Your task to perform on an android device: toggle pop-ups in chrome Image 0: 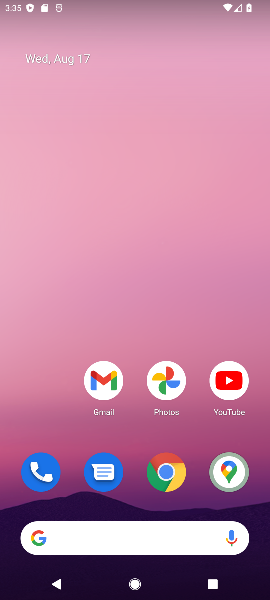
Step 0: click (159, 481)
Your task to perform on an android device: toggle pop-ups in chrome Image 1: 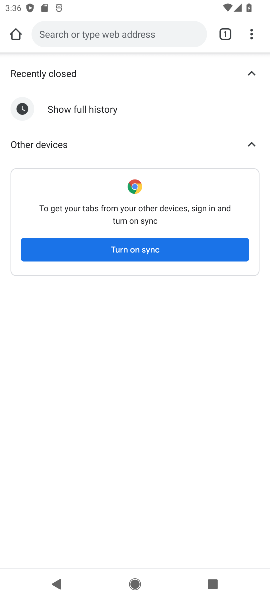
Step 1: click (247, 30)
Your task to perform on an android device: toggle pop-ups in chrome Image 2: 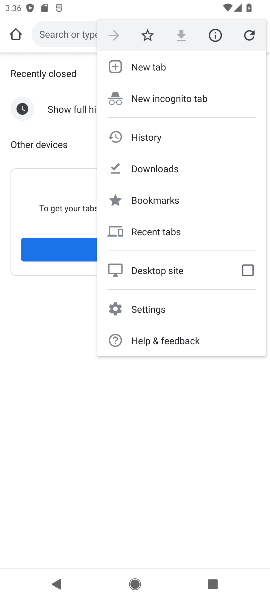
Step 2: click (154, 301)
Your task to perform on an android device: toggle pop-ups in chrome Image 3: 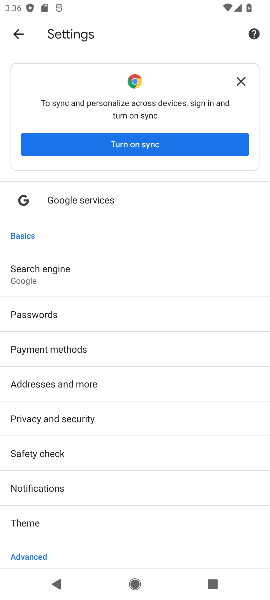
Step 3: drag from (106, 521) to (144, 210)
Your task to perform on an android device: toggle pop-ups in chrome Image 4: 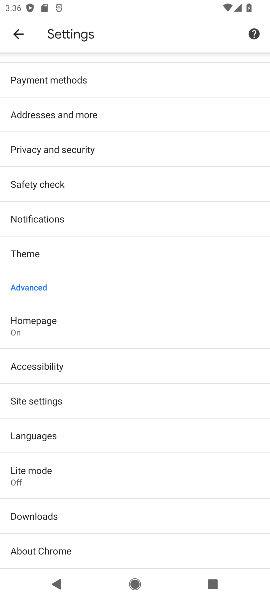
Step 4: click (71, 401)
Your task to perform on an android device: toggle pop-ups in chrome Image 5: 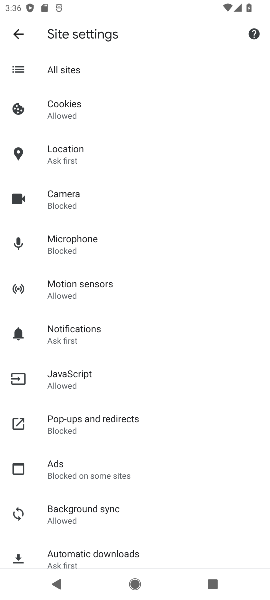
Step 5: drag from (124, 503) to (104, 248)
Your task to perform on an android device: toggle pop-ups in chrome Image 6: 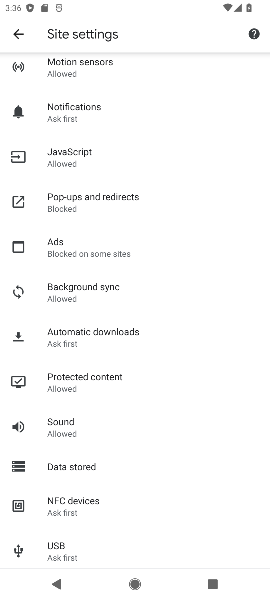
Step 6: click (113, 211)
Your task to perform on an android device: toggle pop-ups in chrome Image 7: 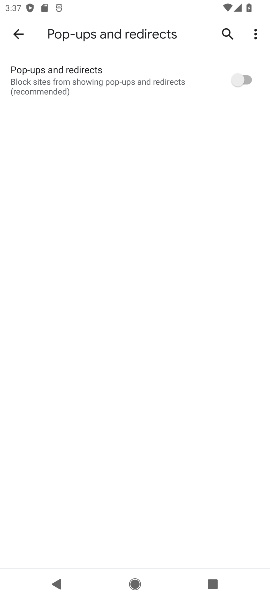
Step 7: click (240, 76)
Your task to perform on an android device: toggle pop-ups in chrome Image 8: 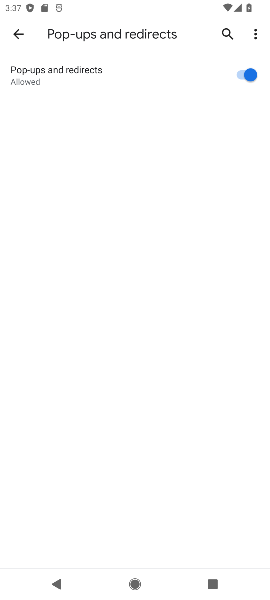
Step 8: task complete